Your task to perform on an android device: Open the calendar app, open the side menu, and click the "Day" option Image 0: 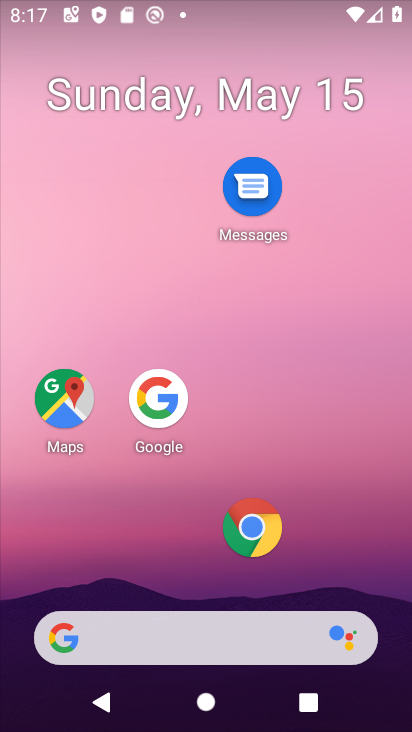
Step 0: press home button
Your task to perform on an android device: Open the calendar app, open the side menu, and click the "Day" option Image 1: 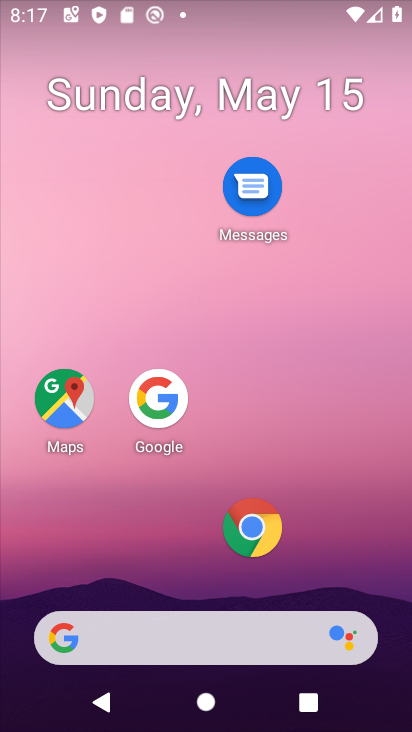
Step 1: drag from (194, 632) to (344, 41)
Your task to perform on an android device: Open the calendar app, open the side menu, and click the "Day" option Image 2: 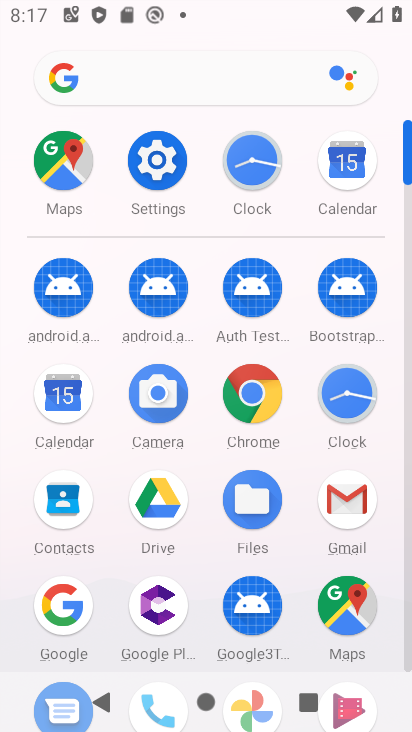
Step 2: click (74, 403)
Your task to perform on an android device: Open the calendar app, open the side menu, and click the "Day" option Image 3: 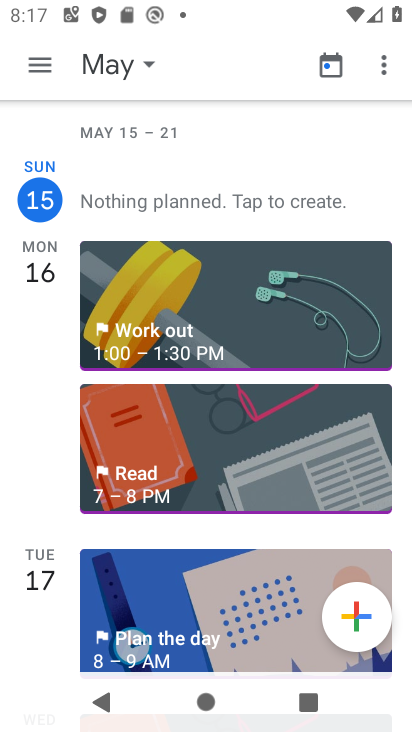
Step 3: click (104, 65)
Your task to perform on an android device: Open the calendar app, open the side menu, and click the "Day" option Image 4: 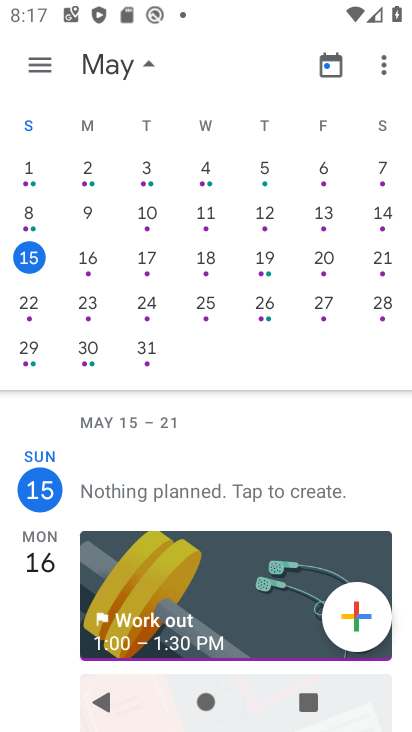
Step 4: click (31, 65)
Your task to perform on an android device: Open the calendar app, open the side menu, and click the "Day" option Image 5: 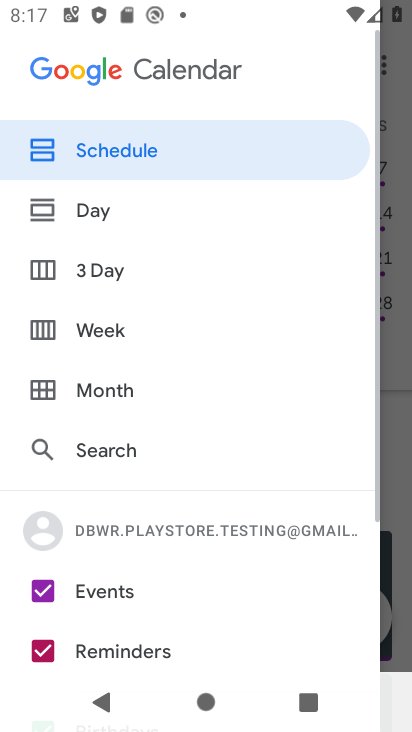
Step 5: click (81, 210)
Your task to perform on an android device: Open the calendar app, open the side menu, and click the "Day" option Image 6: 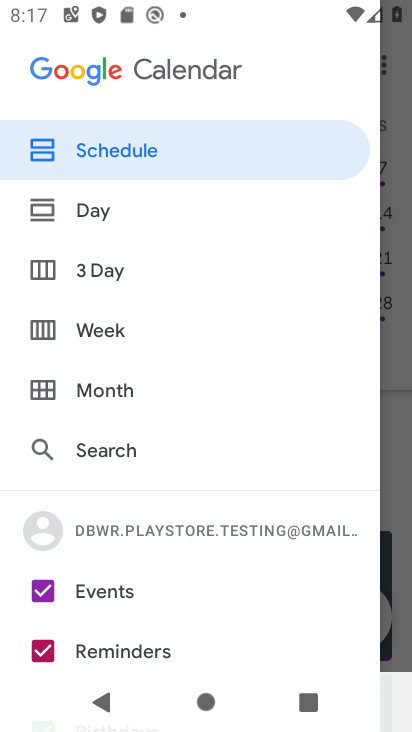
Step 6: click (101, 217)
Your task to perform on an android device: Open the calendar app, open the side menu, and click the "Day" option Image 7: 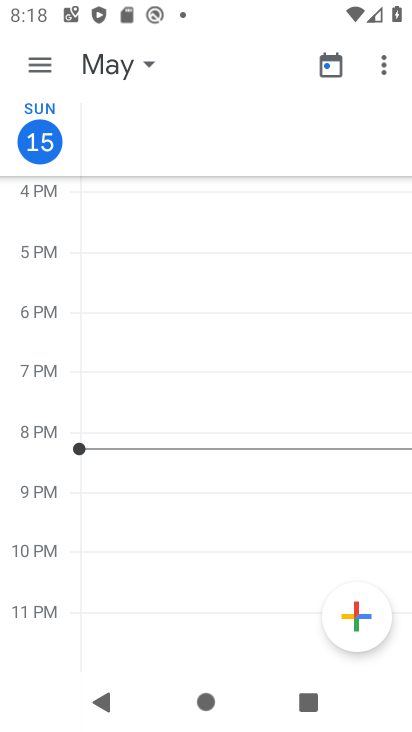
Step 7: task complete